Your task to perform on an android device: Toggle the flashlight Image 0: 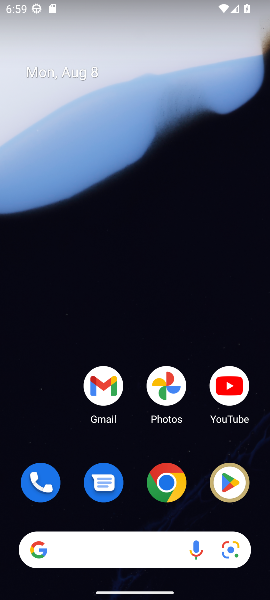
Step 0: drag from (76, 143) to (88, 33)
Your task to perform on an android device: Toggle the flashlight Image 1: 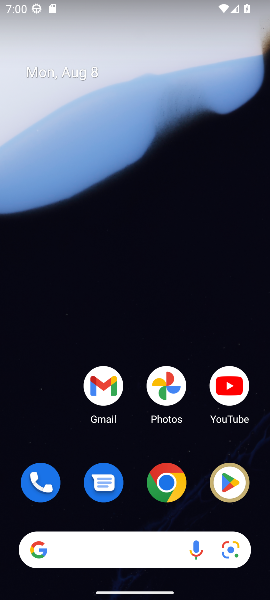
Step 1: drag from (164, 500) to (83, 90)
Your task to perform on an android device: Toggle the flashlight Image 2: 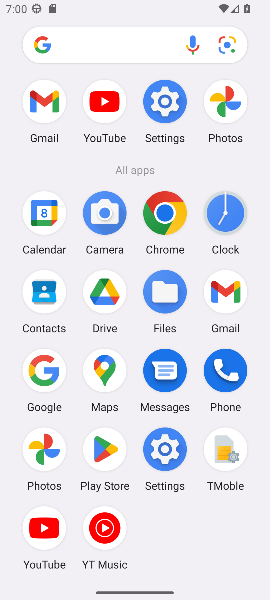
Step 2: click (163, 97)
Your task to perform on an android device: Toggle the flashlight Image 3: 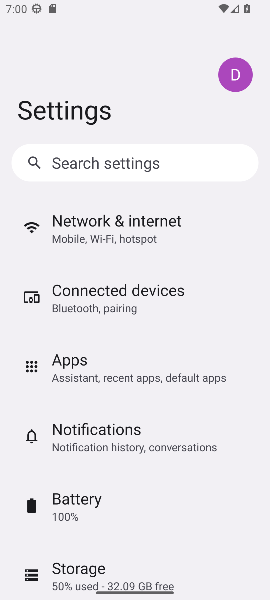
Step 3: task complete